Your task to perform on an android device: Open calendar and show me the third week of next month Image 0: 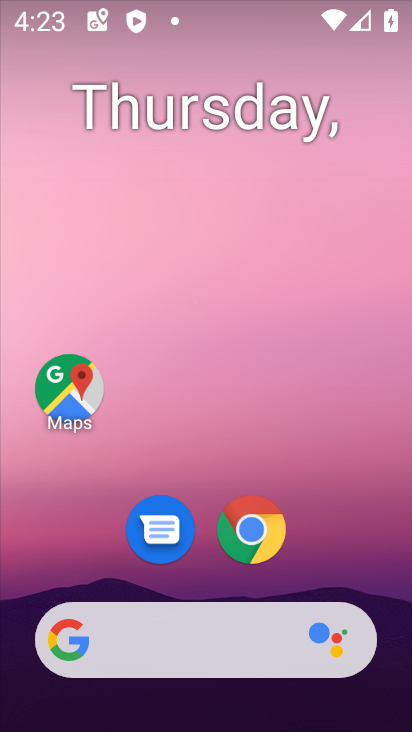
Step 0: drag from (205, 695) to (235, 46)
Your task to perform on an android device: Open calendar and show me the third week of next month Image 1: 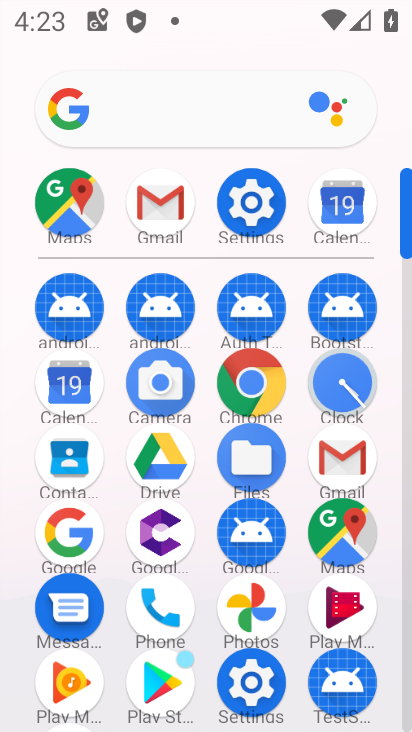
Step 1: click (68, 386)
Your task to perform on an android device: Open calendar and show me the third week of next month Image 2: 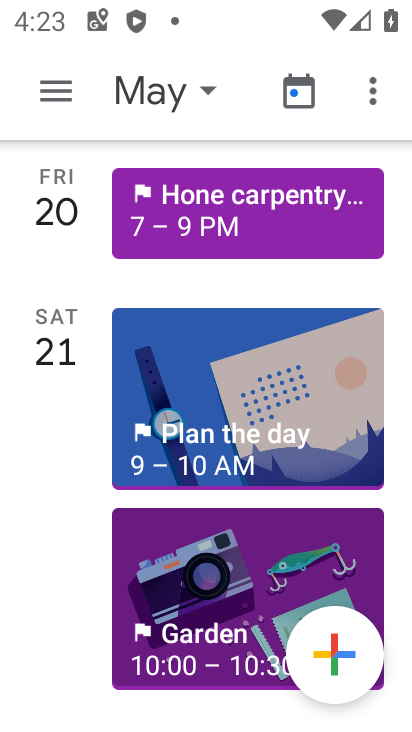
Step 2: click (150, 92)
Your task to perform on an android device: Open calendar and show me the third week of next month Image 3: 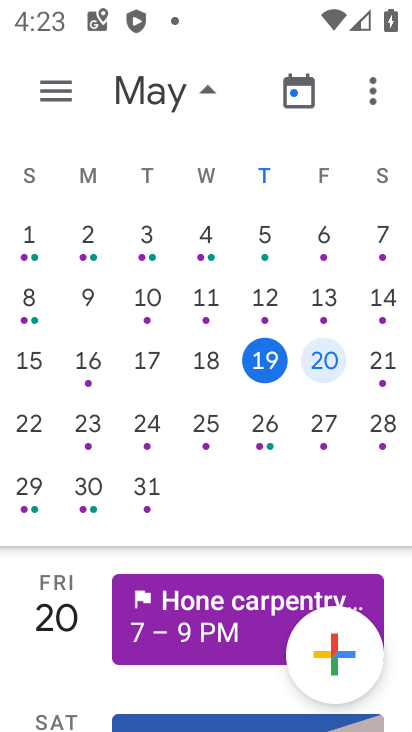
Step 3: drag from (348, 365) to (15, 405)
Your task to perform on an android device: Open calendar and show me the third week of next month Image 4: 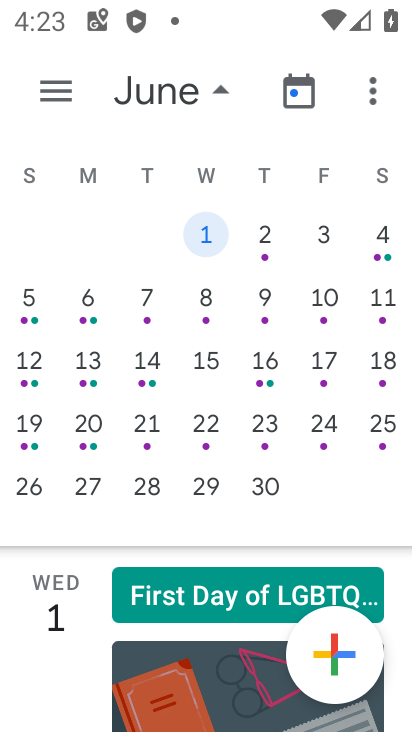
Step 4: click (83, 415)
Your task to perform on an android device: Open calendar and show me the third week of next month Image 5: 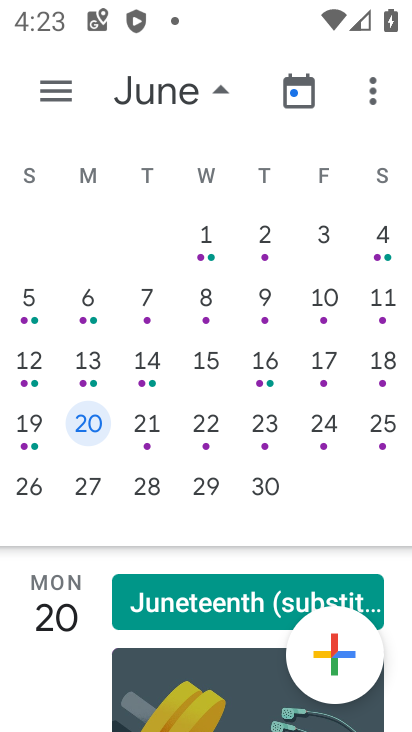
Step 5: click (47, 96)
Your task to perform on an android device: Open calendar and show me the third week of next month Image 6: 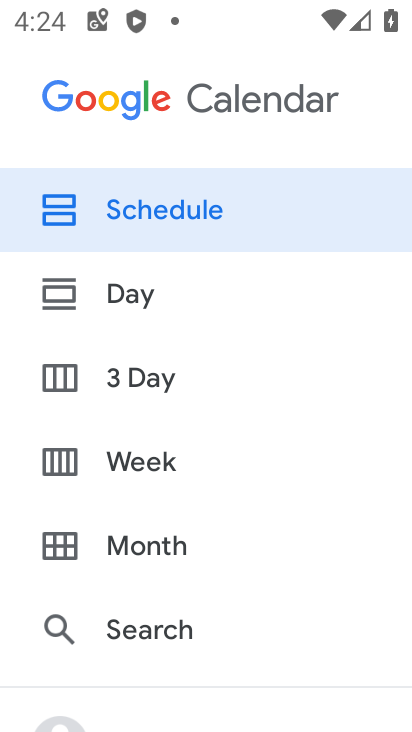
Step 6: click (147, 460)
Your task to perform on an android device: Open calendar and show me the third week of next month Image 7: 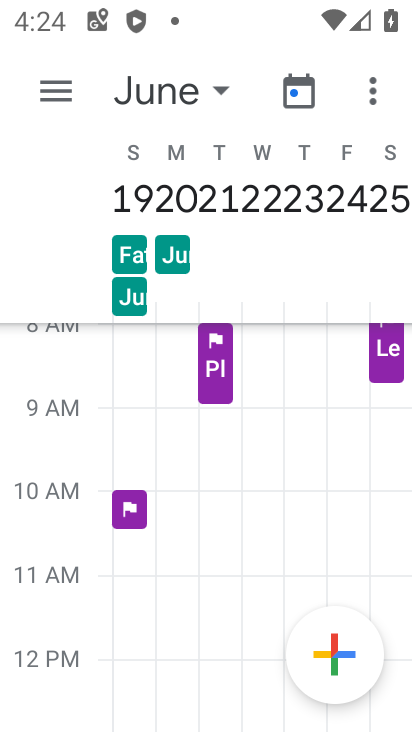
Step 7: task complete